Your task to perform on an android device: turn on translation in the chrome app Image 0: 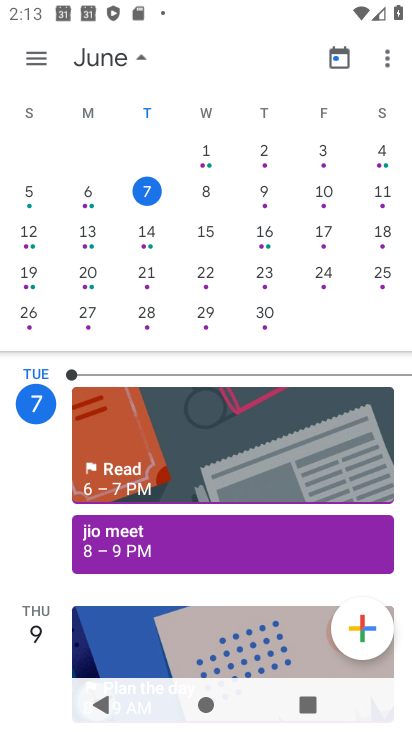
Step 0: drag from (189, 583) to (301, 132)
Your task to perform on an android device: turn on translation in the chrome app Image 1: 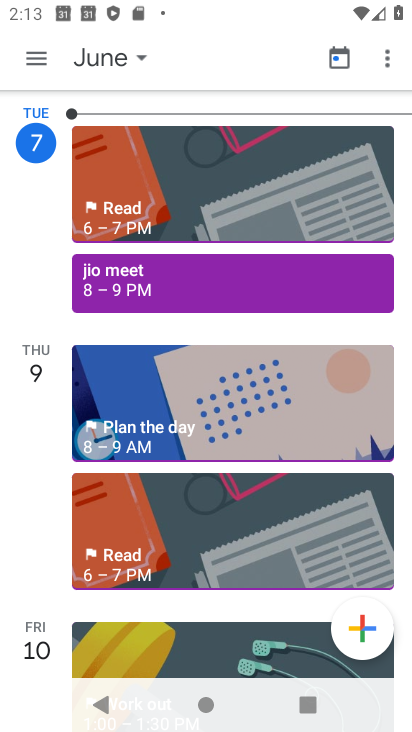
Step 1: press home button
Your task to perform on an android device: turn on translation in the chrome app Image 2: 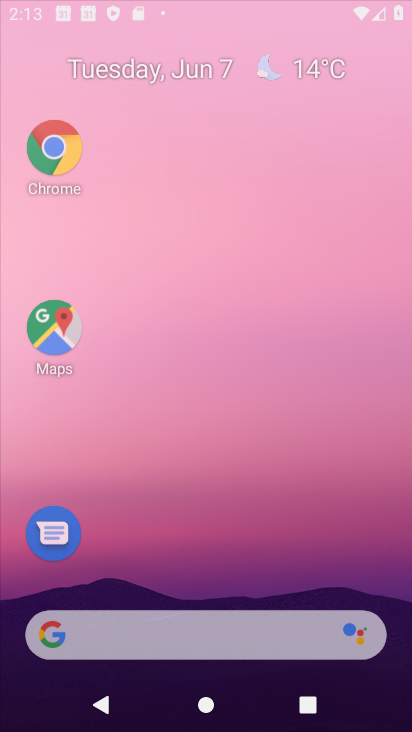
Step 2: drag from (231, 564) to (274, 165)
Your task to perform on an android device: turn on translation in the chrome app Image 3: 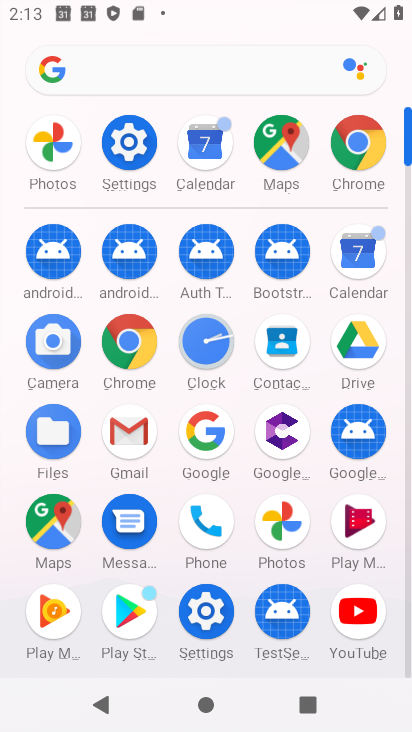
Step 3: click (128, 339)
Your task to perform on an android device: turn on translation in the chrome app Image 4: 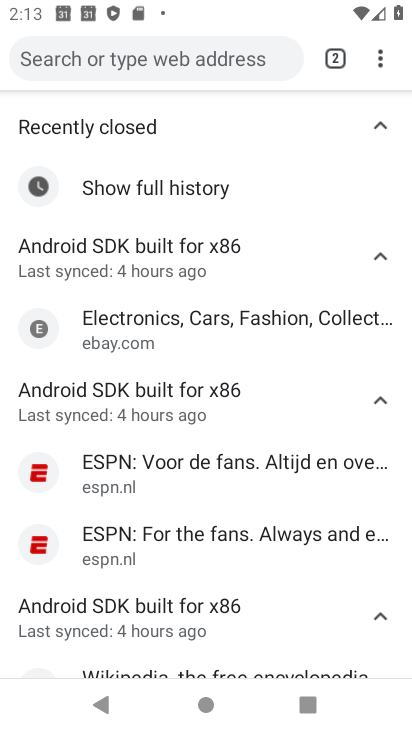
Step 4: click (385, 51)
Your task to perform on an android device: turn on translation in the chrome app Image 5: 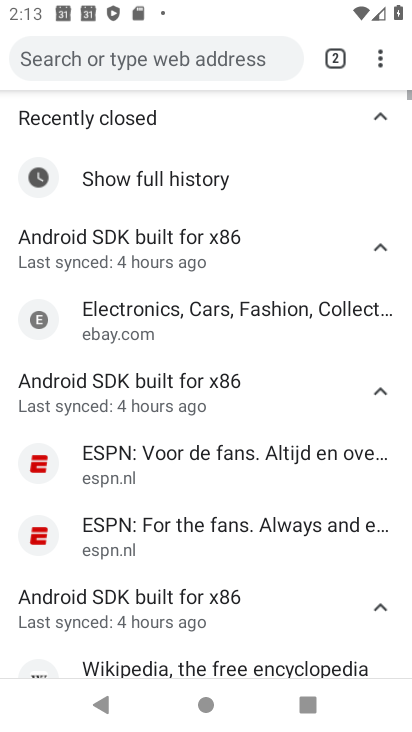
Step 5: drag from (375, 62) to (211, 498)
Your task to perform on an android device: turn on translation in the chrome app Image 6: 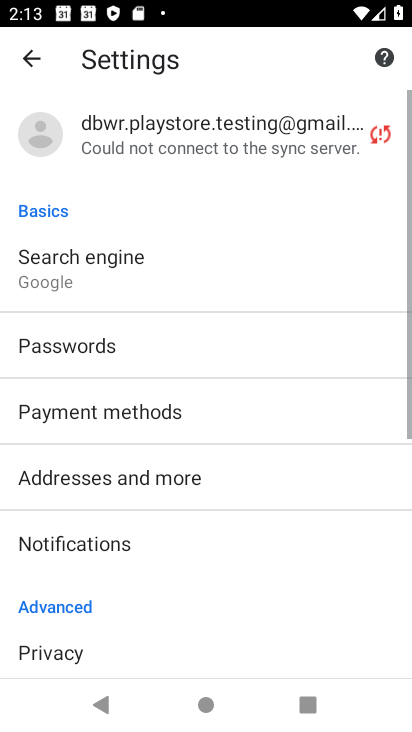
Step 6: drag from (174, 563) to (253, 177)
Your task to perform on an android device: turn on translation in the chrome app Image 7: 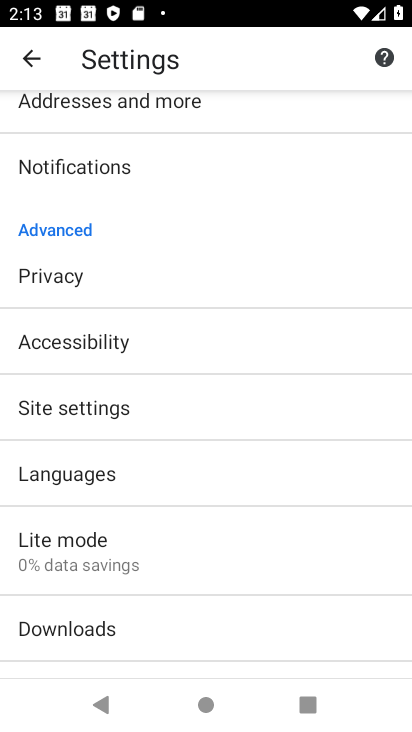
Step 7: click (83, 471)
Your task to perform on an android device: turn on translation in the chrome app Image 8: 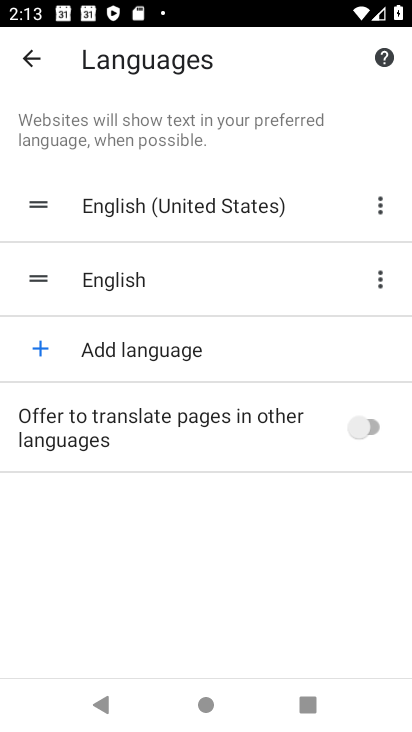
Step 8: click (304, 415)
Your task to perform on an android device: turn on translation in the chrome app Image 9: 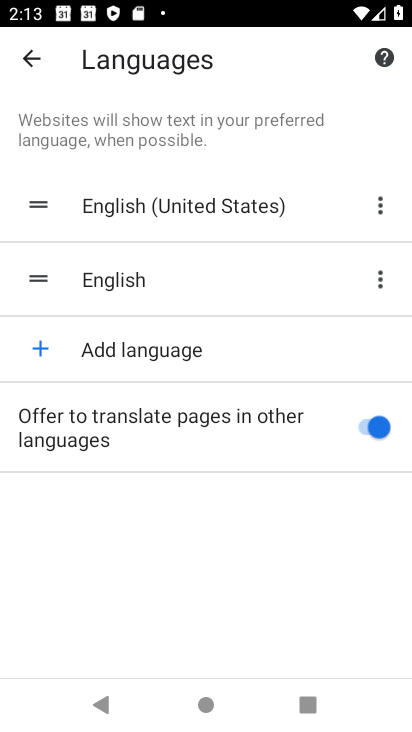
Step 9: task complete